Your task to perform on an android device: Open Google Chrome Image 0: 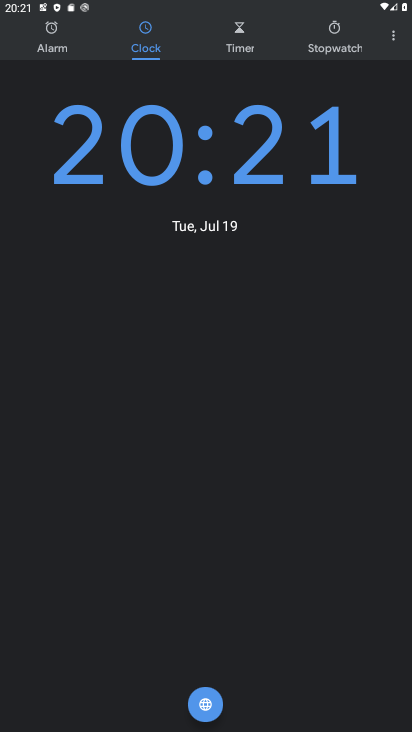
Step 0: press home button
Your task to perform on an android device: Open Google Chrome Image 1: 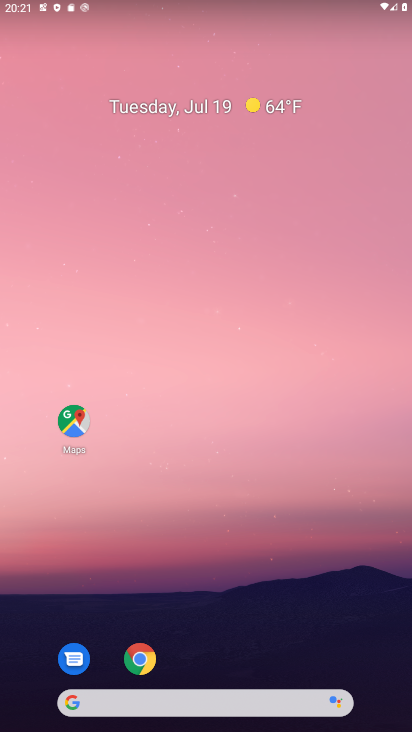
Step 1: click (141, 659)
Your task to perform on an android device: Open Google Chrome Image 2: 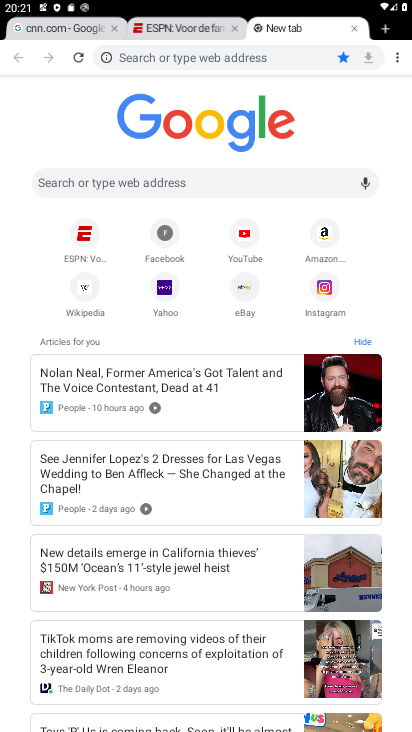
Step 2: task complete